Your task to perform on an android device: Look up the best rated gaming chairs on Target. Image 0: 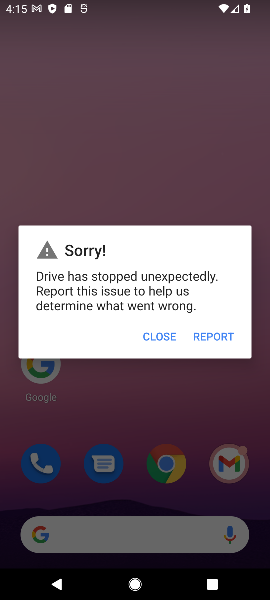
Step 0: press home button
Your task to perform on an android device: Look up the best rated gaming chairs on Target. Image 1: 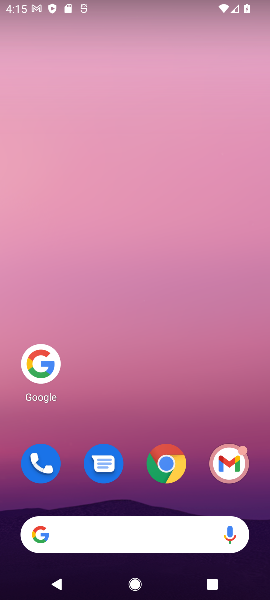
Step 1: click (149, 280)
Your task to perform on an android device: Look up the best rated gaming chairs on Target. Image 2: 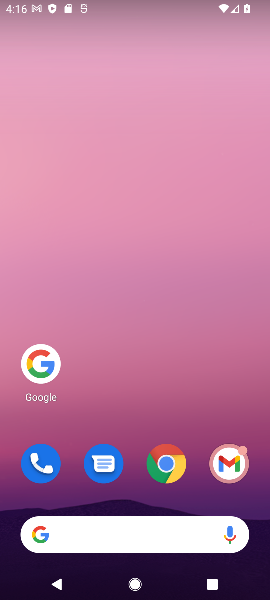
Step 2: click (41, 359)
Your task to perform on an android device: Look up the best rated gaming chairs on Target. Image 3: 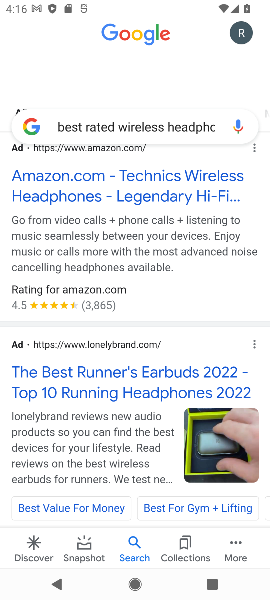
Step 3: click (196, 123)
Your task to perform on an android device: Look up the best rated gaming chairs on Target. Image 4: 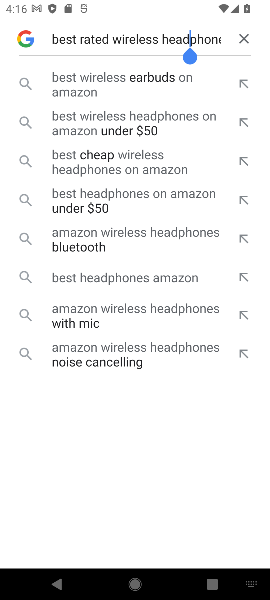
Step 4: click (244, 31)
Your task to perform on an android device: Look up the best rated gaming chairs on Target. Image 5: 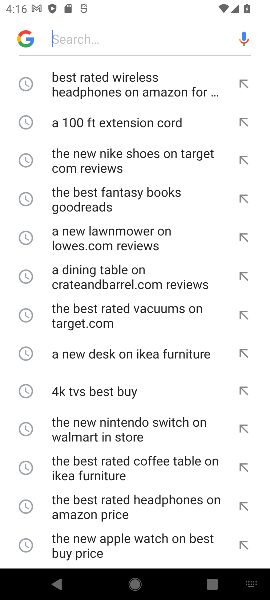
Step 5: click (131, 40)
Your task to perform on an android device: Look up the best rated gaming chairs on Target. Image 6: 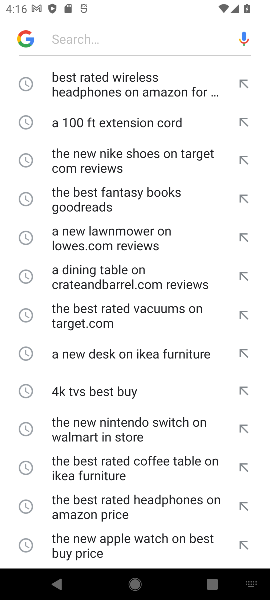
Step 6: type " best rated gaming chairs on Target "
Your task to perform on an android device: Look up the best rated gaming chairs on Target. Image 7: 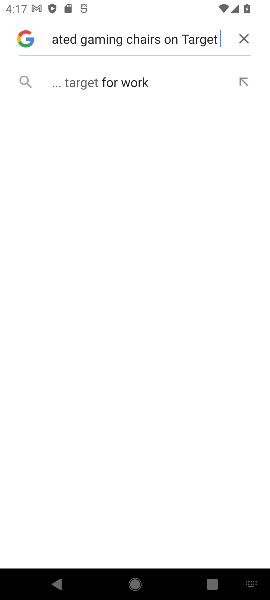
Step 7: click (106, 89)
Your task to perform on an android device: Look up the best rated gaming chairs on Target. Image 8: 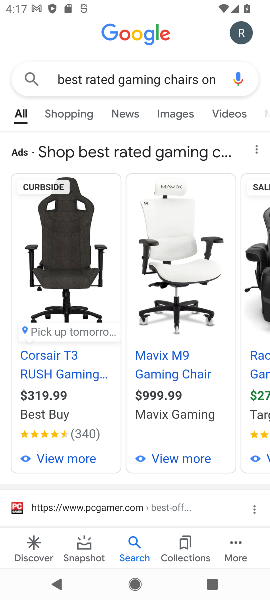
Step 8: task complete